Your task to perform on an android device: Open Youtube and go to the subscriptions tab Image 0: 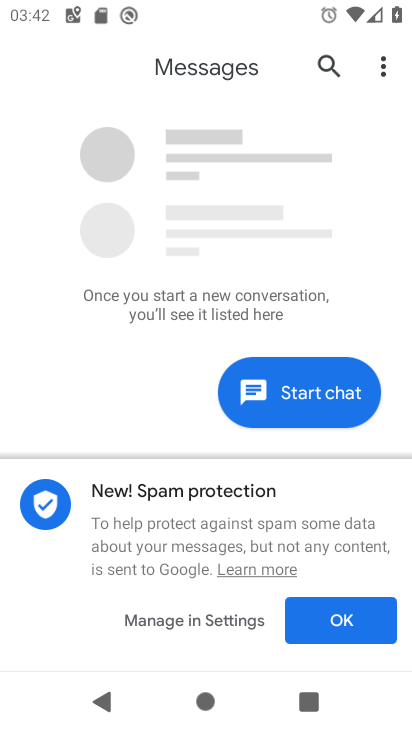
Step 0: press home button
Your task to perform on an android device: Open Youtube and go to the subscriptions tab Image 1: 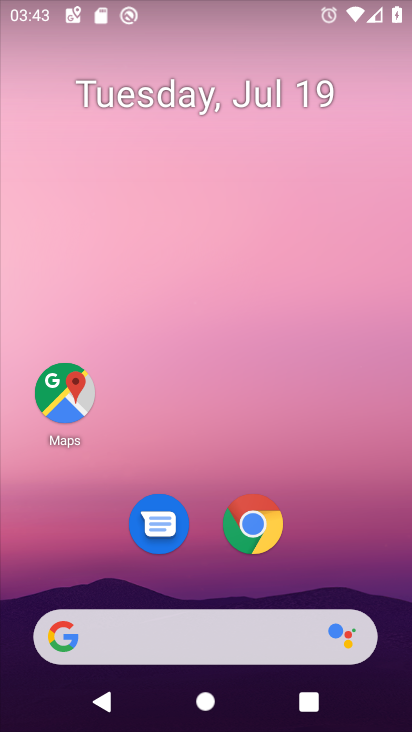
Step 1: drag from (361, 558) to (372, 52)
Your task to perform on an android device: Open Youtube and go to the subscriptions tab Image 2: 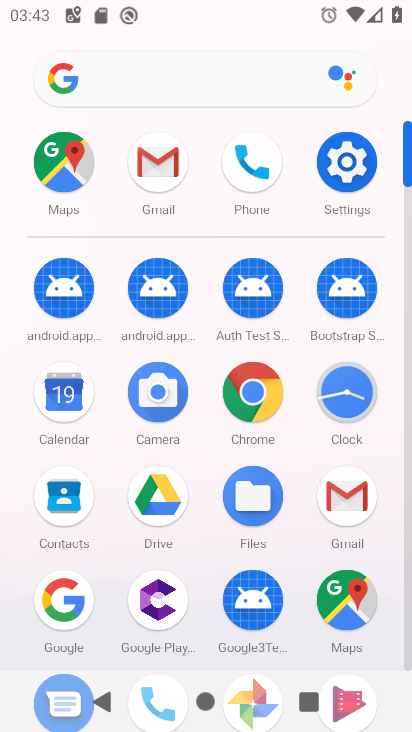
Step 2: drag from (315, 557) to (324, 55)
Your task to perform on an android device: Open Youtube and go to the subscriptions tab Image 3: 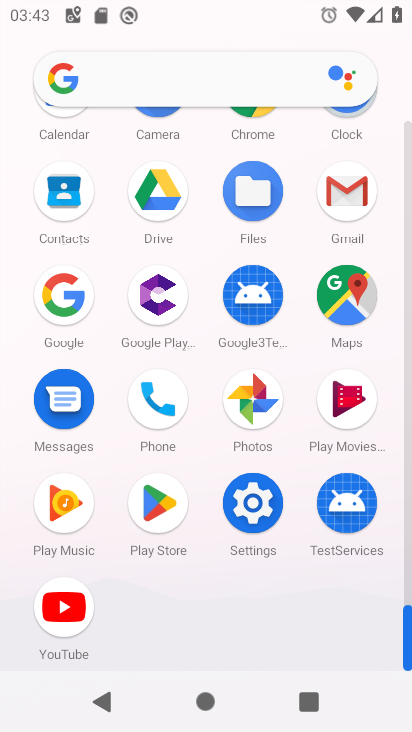
Step 3: click (68, 594)
Your task to perform on an android device: Open Youtube and go to the subscriptions tab Image 4: 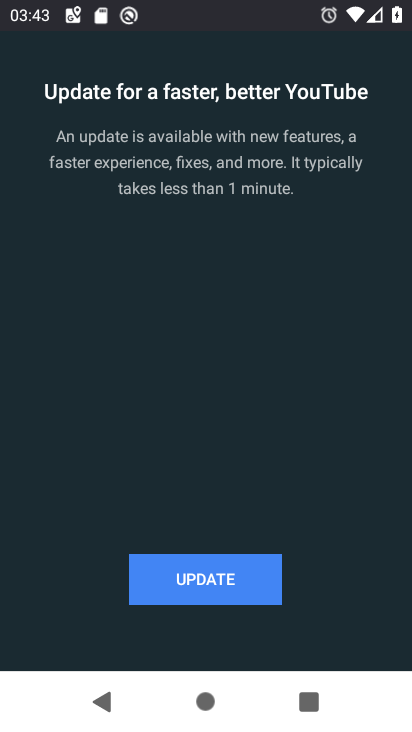
Step 4: click (186, 581)
Your task to perform on an android device: Open Youtube and go to the subscriptions tab Image 5: 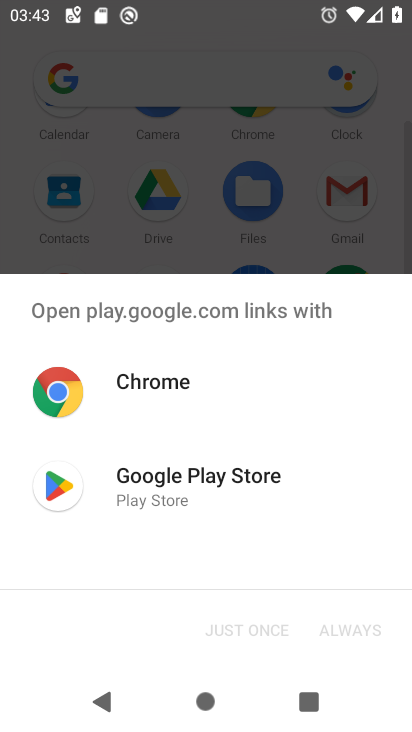
Step 5: click (121, 474)
Your task to perform on an android device: Open Youtube and go to the subscriptions tab Image 6: 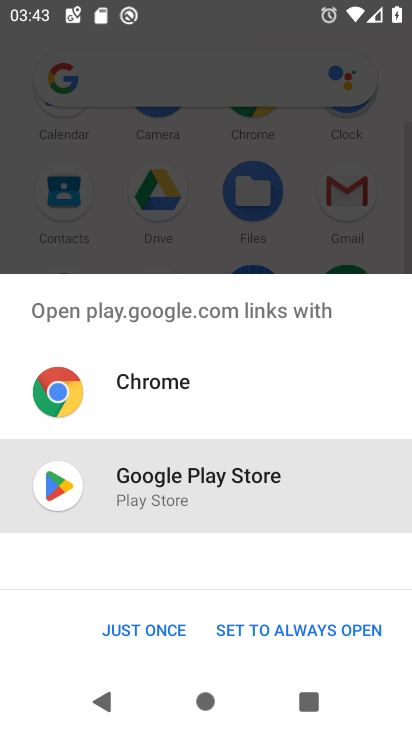
Step 6: click (151, 625)
Your task to perform on an android device: Open Youtube and go to the subscriptions tab Image 7: 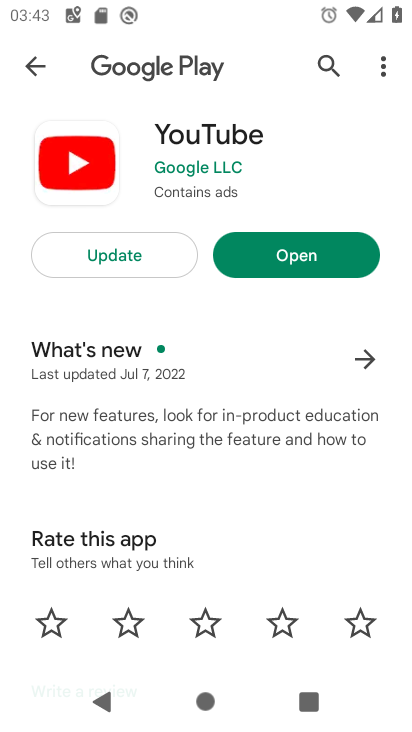
Step 7: click (157, 261)
Your task to perform on an android device: Open Youtube and go to the subscriptions tab Image 8: 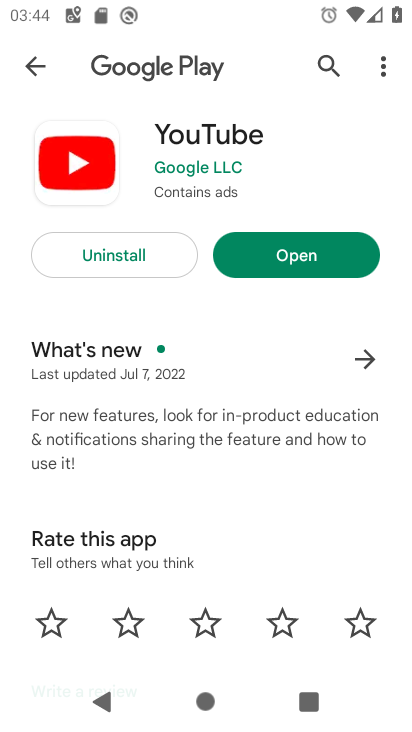
Step 8: click (287, 262)
Your task to perform on an android device: Open Youtube and go to the subscriptions tab Image 9: 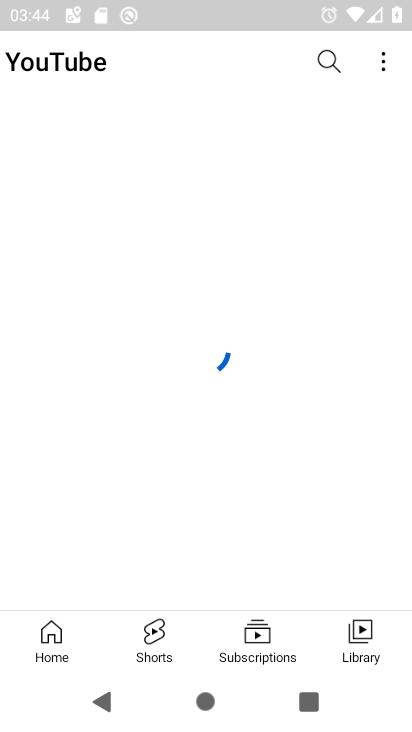
Step 9: click (249, 628)
Your task to perform on an android device: Open Youtube and go to the subscriptions tab Image 10: 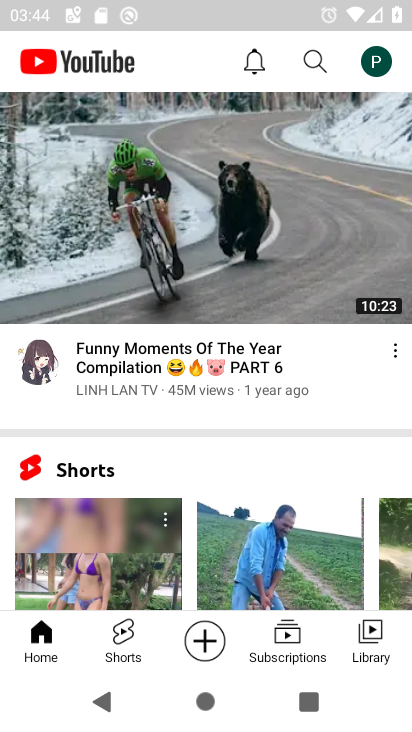
Step 10: click (294, 643)
Your task to perform on an android device: Open Youtube and go to the subscriptions tab Image 11: 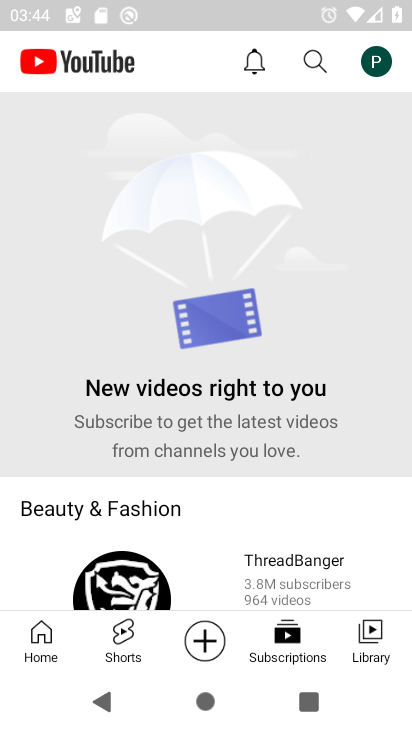
Step 11: task complete